Your task to perform on an android device: Open the web browser Image 0: 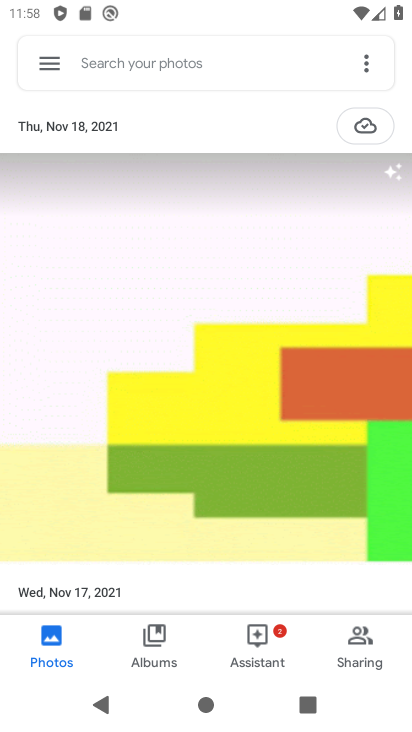
Step 0: press home button
Your task to perform on an android device: Open the web browser Image 1: 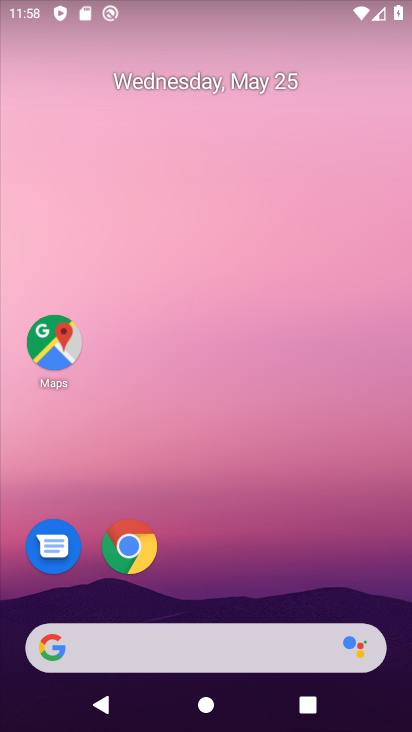
Step 1: click (99, 634)
Your task to perform on an android device: Open the web browser Image 2: 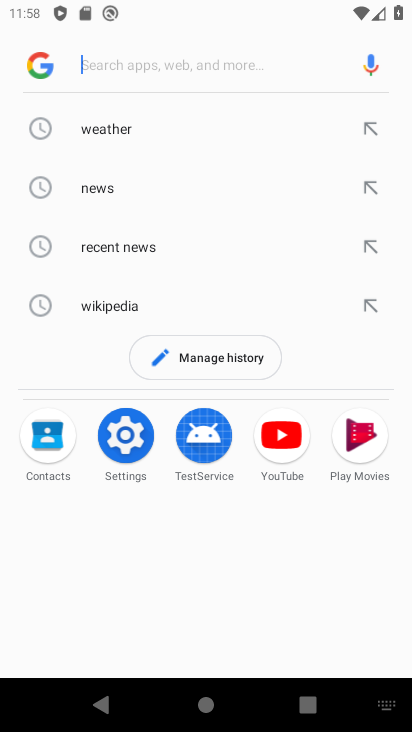
Step 2: task complete